Your task to perform on an android device: toggle javascript in the chrome app Image 0: 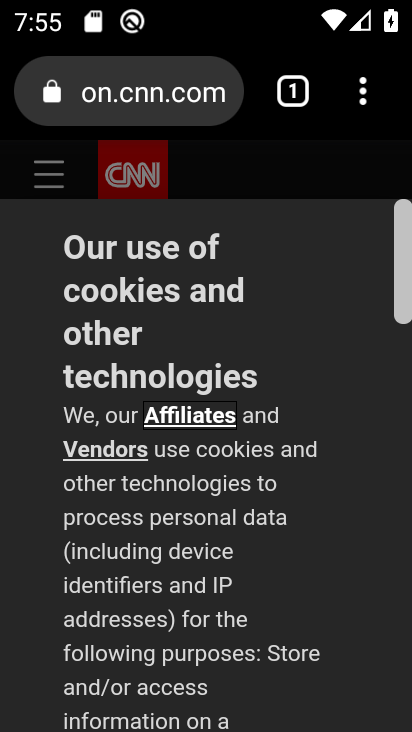
Step 0: click (361, 98)
Your task to perform on an android device: toggle javascript in the chrome app Image 1: 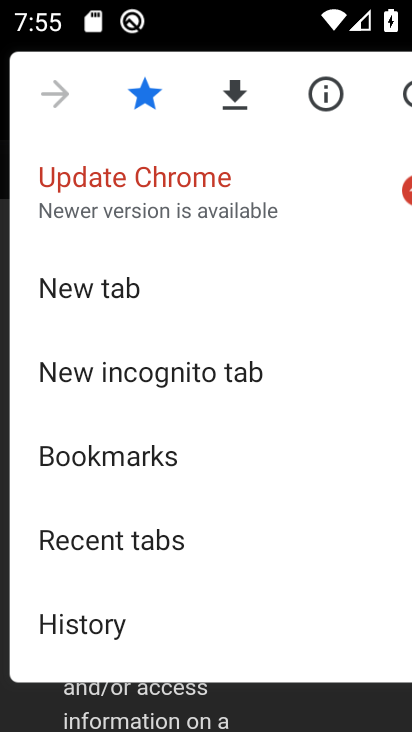
Step 1: drag from (224, 566) to (221, 113)
Your task to perform on an android device: toggle javascript in the chrome app Image 2: 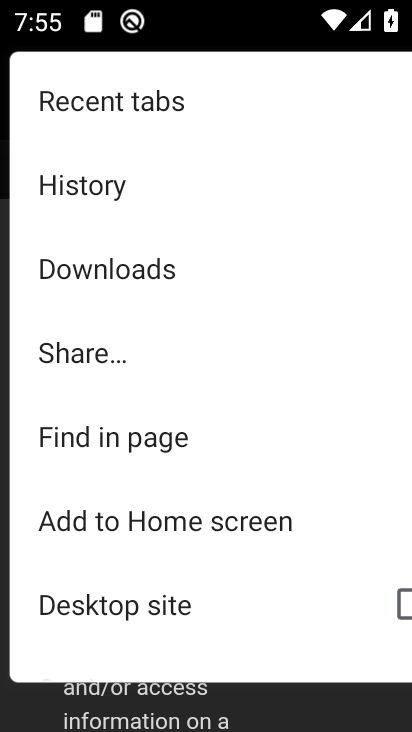
Step 2: drag from (169, 640) to (149, 205)
Your task to perform on an android device: toggle javascript in the chrome app Image 3: 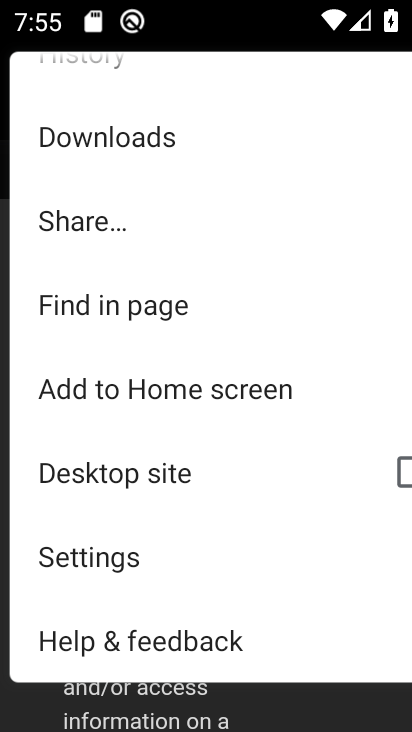
Step 3: click (114, 555)
Your task to perform on an android device: toggle javascript in the chrome app Image 4: 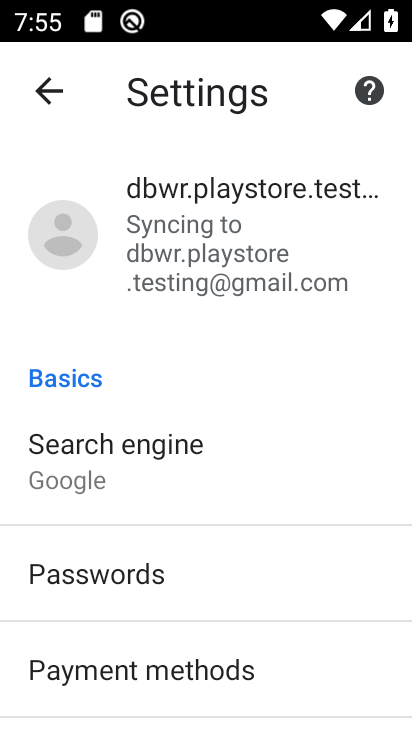
Step 4: drag from (132, 677) to (108, 258)
Your task to perform on an android device: toggle javascript in the chrome app Image 5: 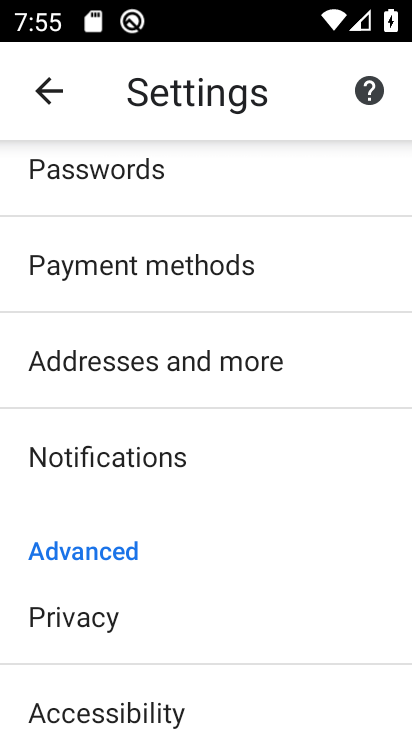
Step 5: drag from (130, 705) to (139, 355)
Your task to perform on an android device: toggle javascript in the chrome app Image 6: 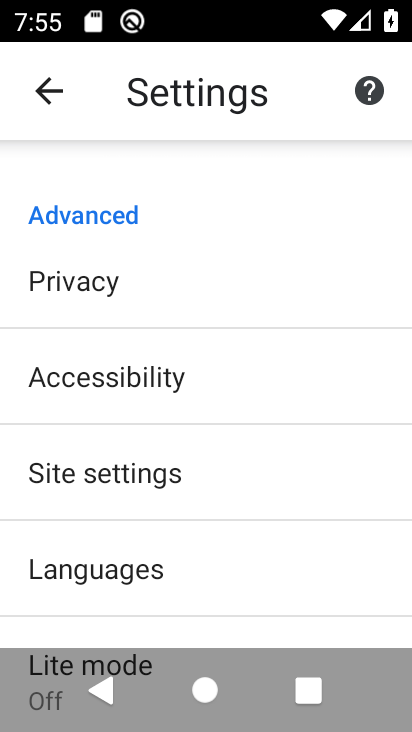
Step 6: click (122, 461)
Your task to perform on an android device: toggle javascript in the chrome app Image 7: 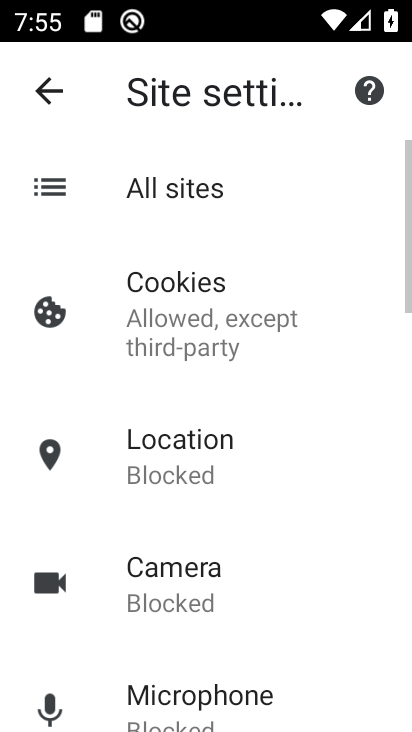
Step 7: drag from (143, 668) to (155, 257)
Your task to perform on an android device: toggle javascript in the chrome app Image 8: 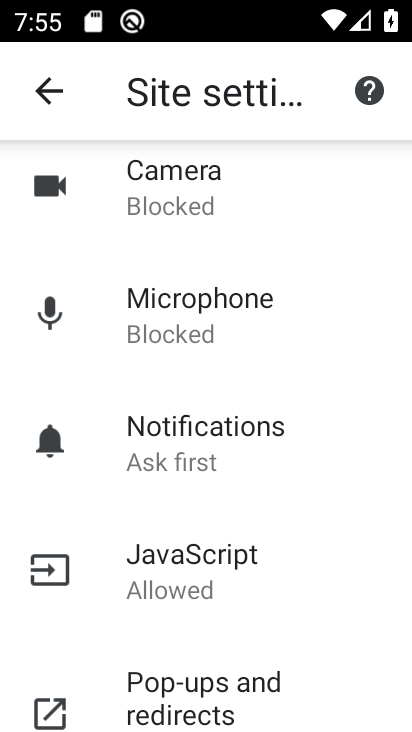
Step 8: click (165, 585)
Your task to perform on an android device: toggle javascript in the chrome app Image 9: 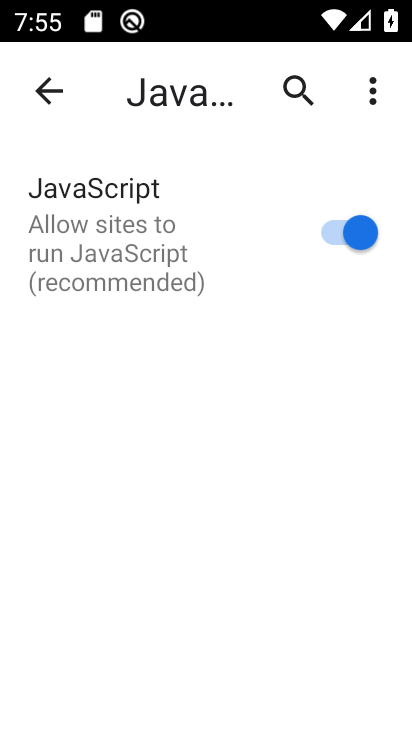
Step 9: click (346, 227)
Your task to perform on an android device: toggle javascript in the chrome app Image 10: 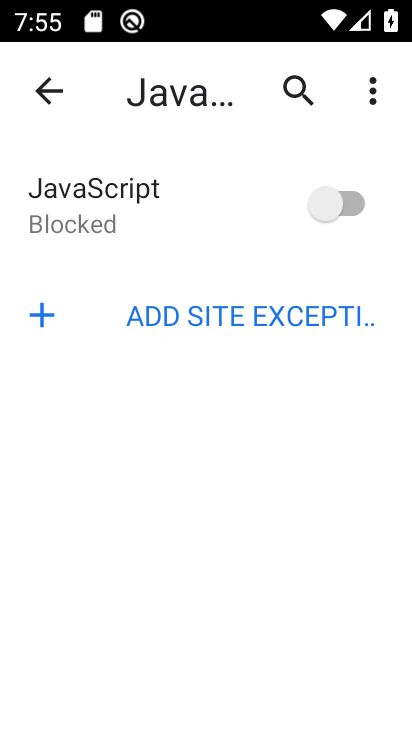
Step 10: task complete